Your task to perform on an android device: Go to Android settings Image 0: 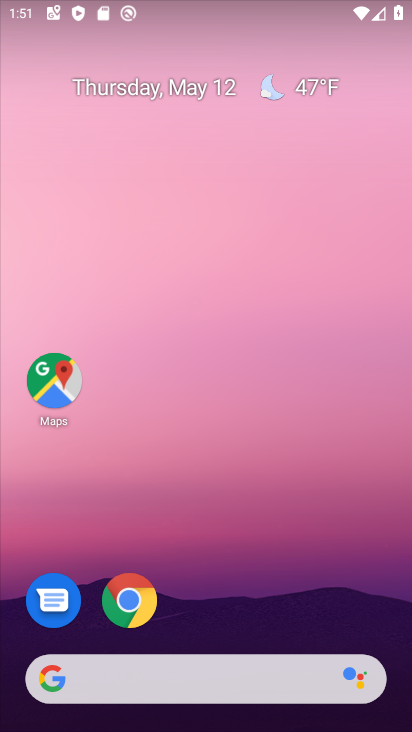
Step 0: drag from (215, 606) to (229, 19)
Your task to perform on an android device: Go to Android settings Image 1: 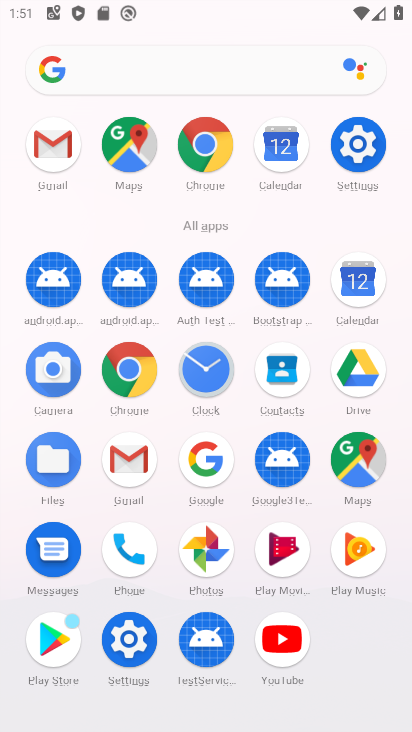
Step 1: click (344, 159)
Your task to perform on an android device: Go to Android settings Image 2: 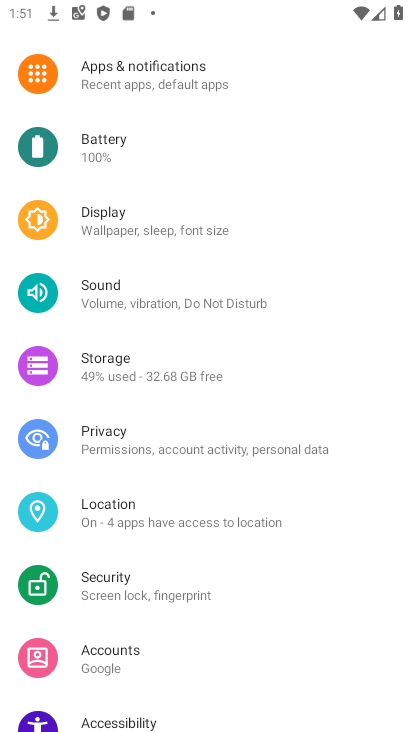
Step 2: task complete